Your task to perform on an android device: turn on airplane mode Image 0: 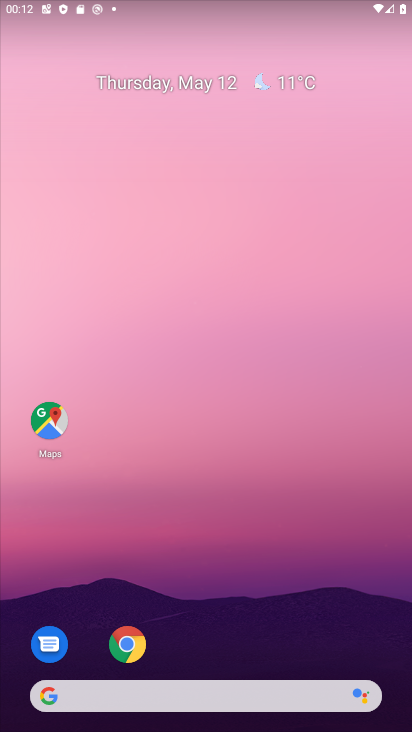
Step 0: press home button
Your task to perform on an android device: turn on airplane mode Image 1: 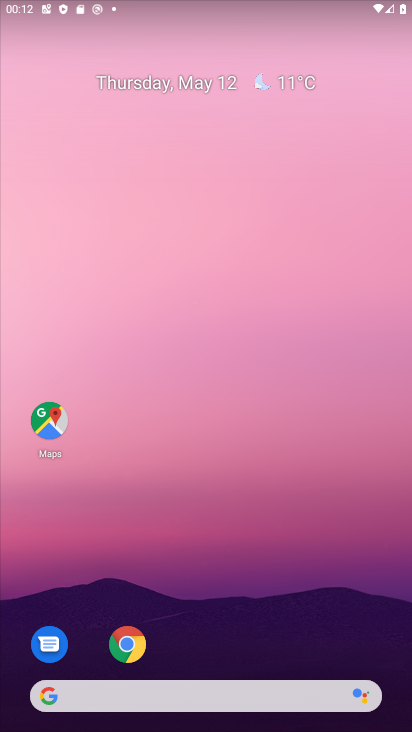
Step 1: drag from (262, 9) to (203, 642)
Your task to perform on an android device: turn on airplane mode Image 2: 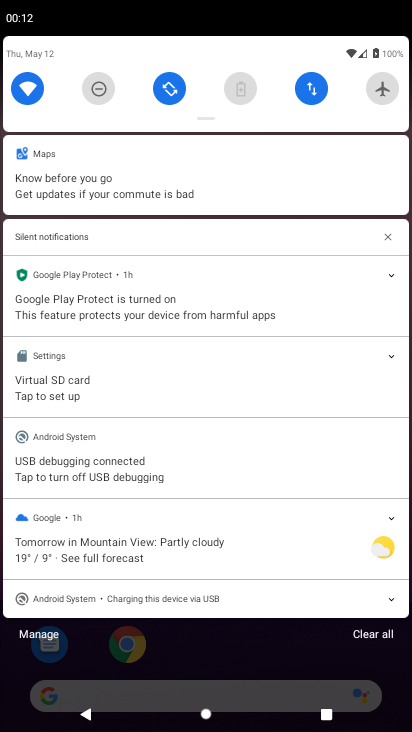
Step 2: click (381, 84)
Your task to perform on an android device: turn on airplane mode Image 3: 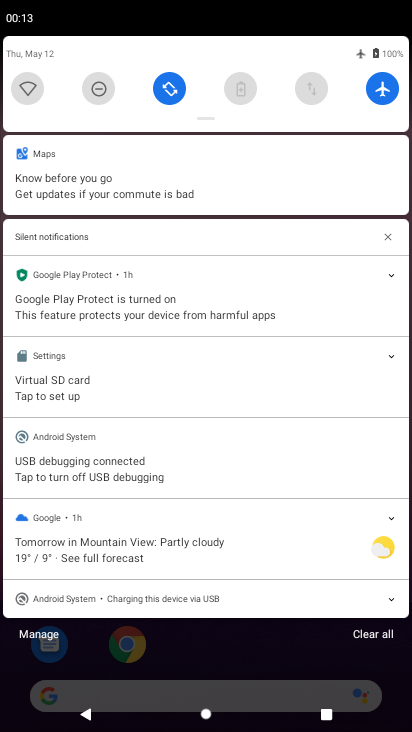
Step 3: click (378, 631)
Your task to perform on an android device: turn on airplane mode Image 4: 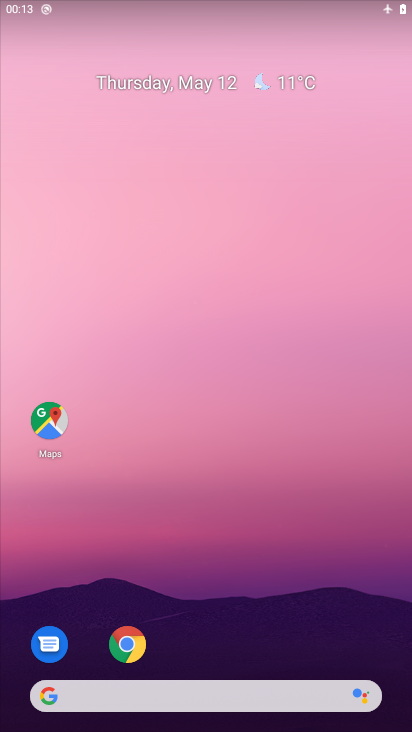
Step 4: task complete